Your task to perform on an android device: create a new album in the google photos Image 0: 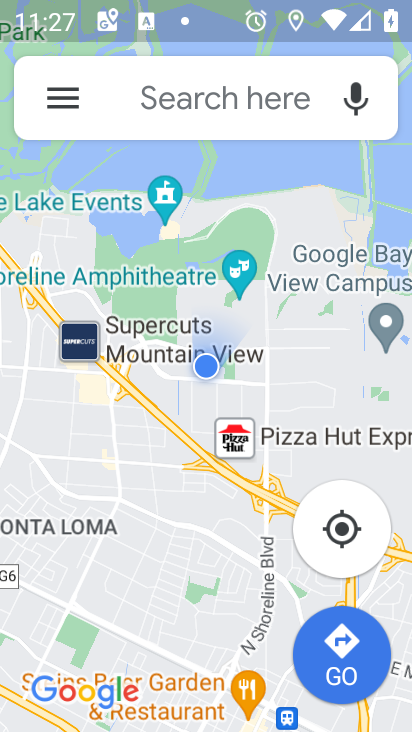
Step 0: press home button
Your task to perform on an android device: create a new album in the google photos Image 1: 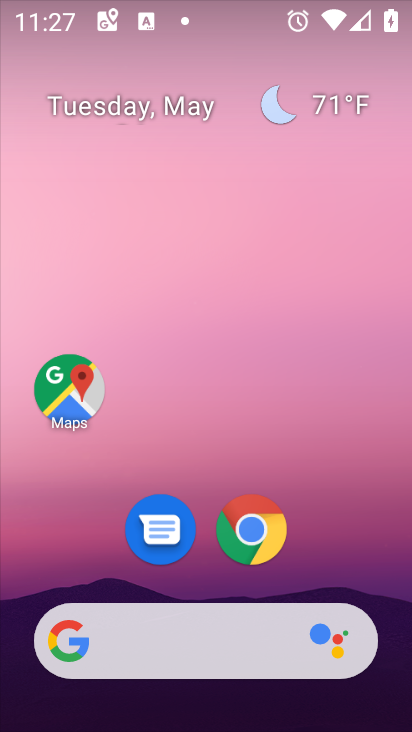
Step 1: drag from (243, 612) to (243, 128)
Your task to perform on an android device: create a new album in the google photos Image 2: 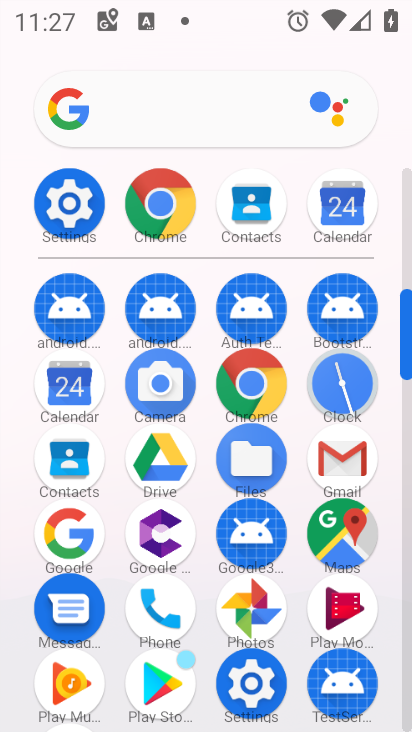
Step 2: click (262, 630)
Your task to perform on an android device: create a new album in the google photos Image 3: 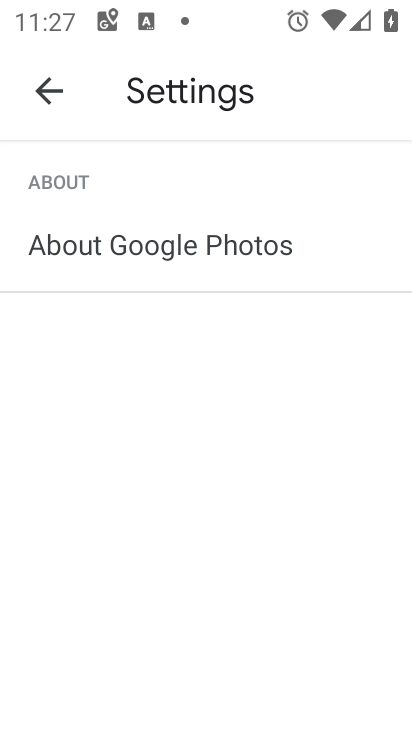
Step 3: click (47, 97)
Your task to perform on an android device: create a new album in the google photos Image 4: 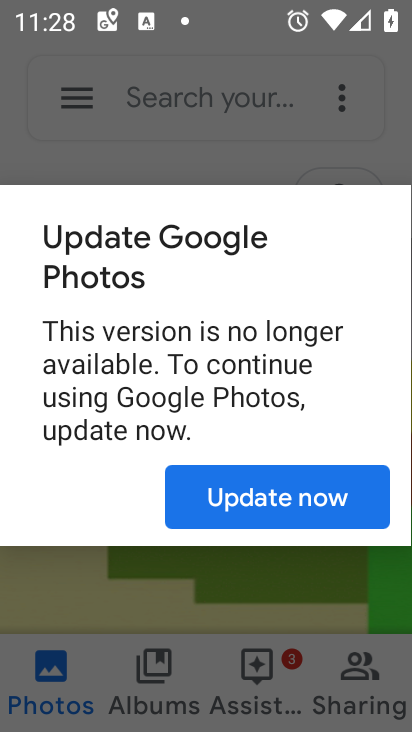
Step 4: task complete